Your task to perform on an android device: Search for Mexican restaurants on Maps Image 0: 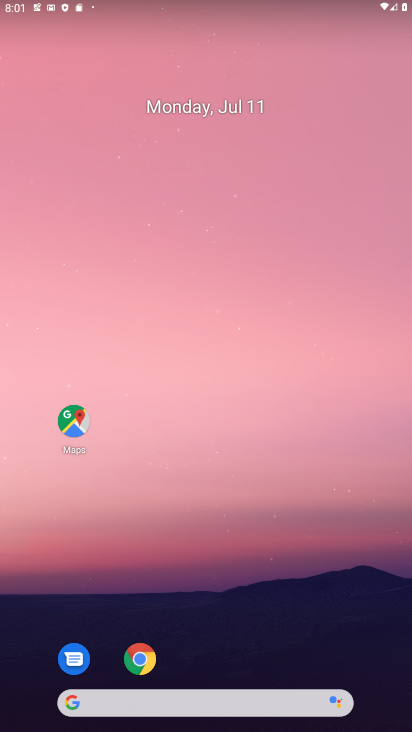
Step 0: drag from (207, 474) to (150, 110)
Your task to perform on an android device: Search for Mexican restaurants on Maps Image 1: 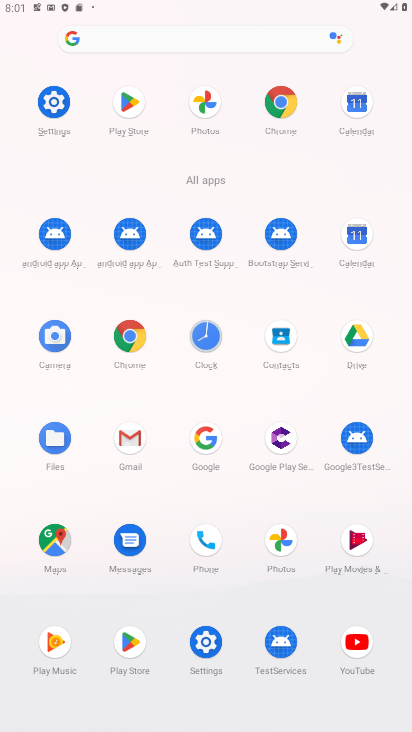
Step 1: click (44, 542)
Your task to perform on an android device: Search for Mexican restaurants on Maps Image 2: 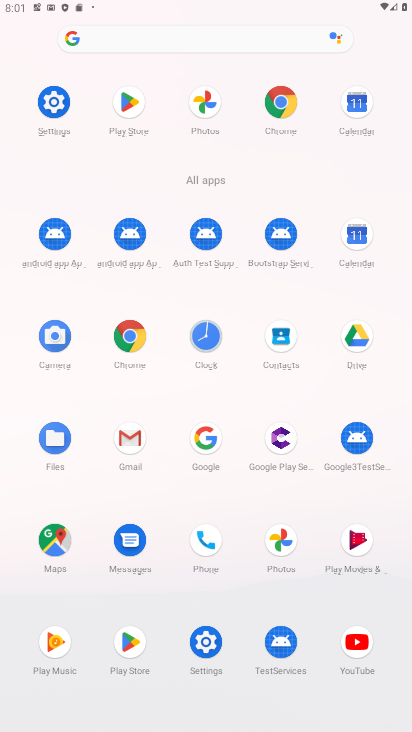
Step 2: click (44, 543)
Your task to perform on an android device: Search for Mexican restaurants on Maps Image 3: 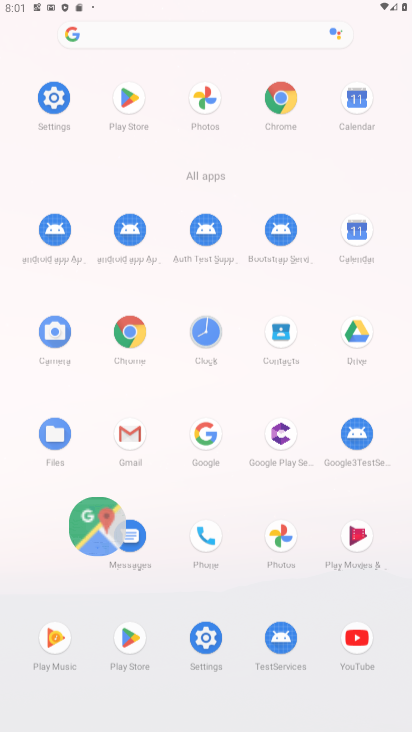
Step 3: click (48, 542)
Your task to perform on an android device: Search for Mexican restaurants on Maps Image 4: 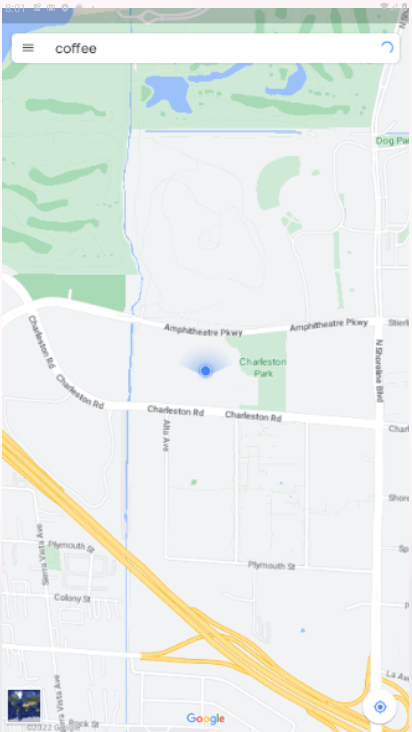
Step 4: click (49, 541)
Your task to perform on an android device: Search for Mexican restaurants on Maps Image 5: 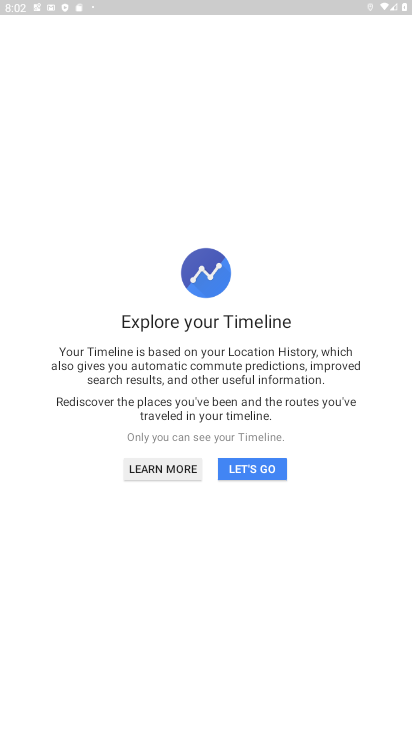
Step 5: press back button
Your task to perform on an android device: Search for Mexican restaurants on Maps Image 6: 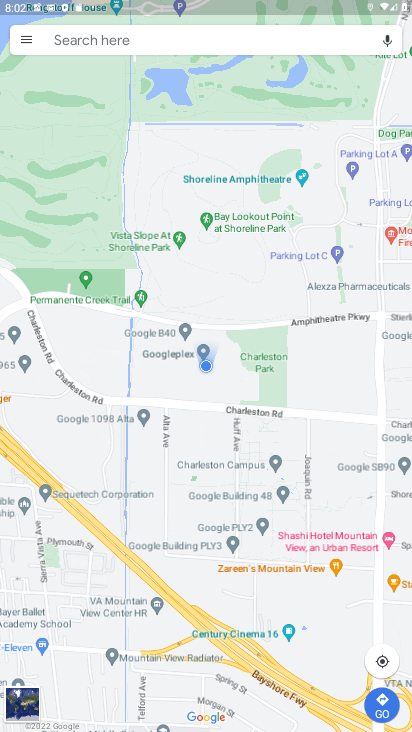
Step 6: click (109, 39)
Your task to perform on an android device: Search for Mexican restaurants on Maps Image 7: 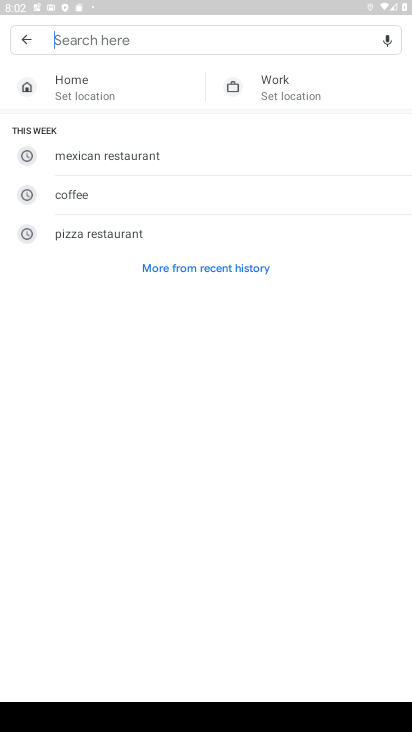
Step 7: press back button
Your task to perform on an android device: Search for Mexican restaurants on Maps Image 8: 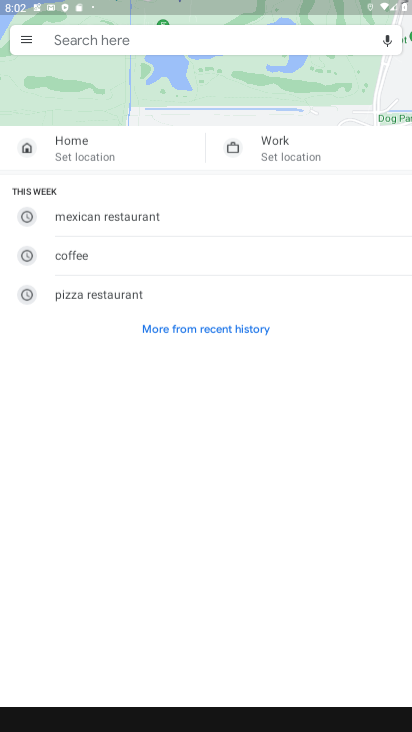
Step 8: press back button
Your task to perform on an android device: Search for Mexican restaurants on Maps Image 9: 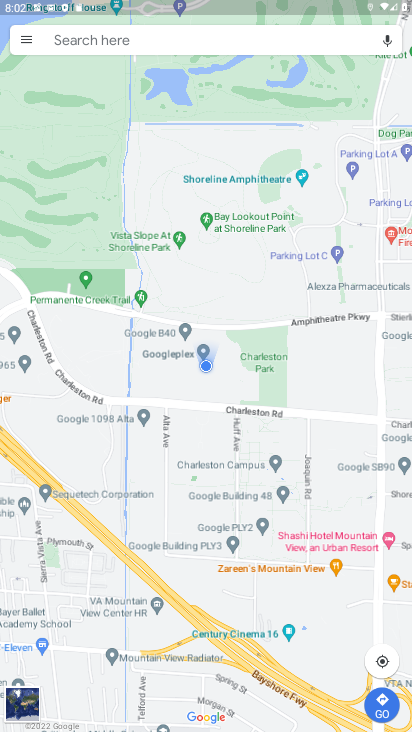
Step 9: press back button
Your task to perform on an android device: Search for Mexican restaurants on Maps Image 10: 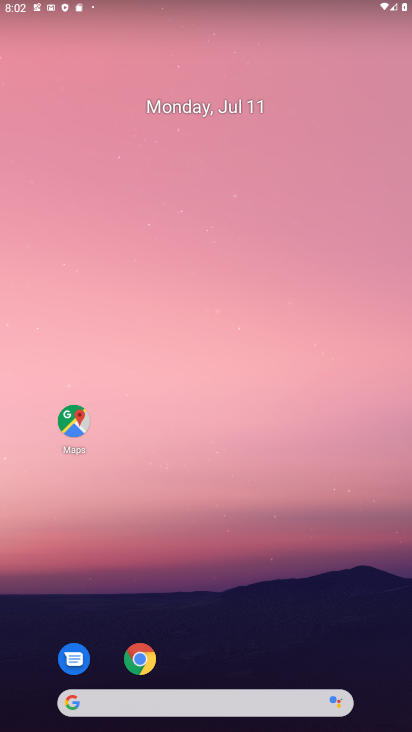
Step 10: drag from (147, 437) to (68, 43)
Your task to perform on an android device: Search for Mexican restaurants on Maps Image 11: 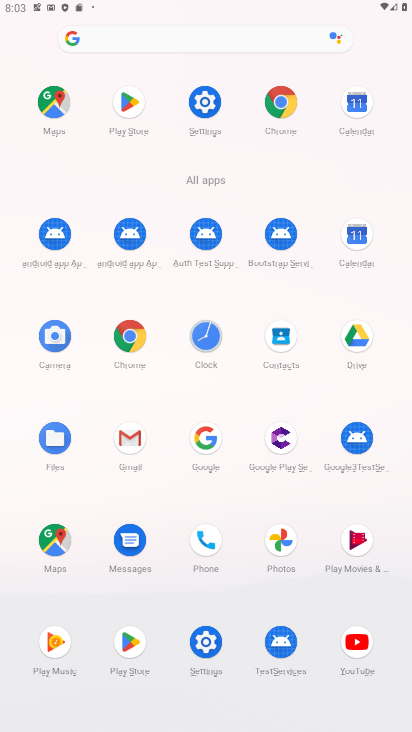
Step 11: click (59, 537)
Your task to perform on an android device: Search for Mexican restaurants on Maps Image 12: 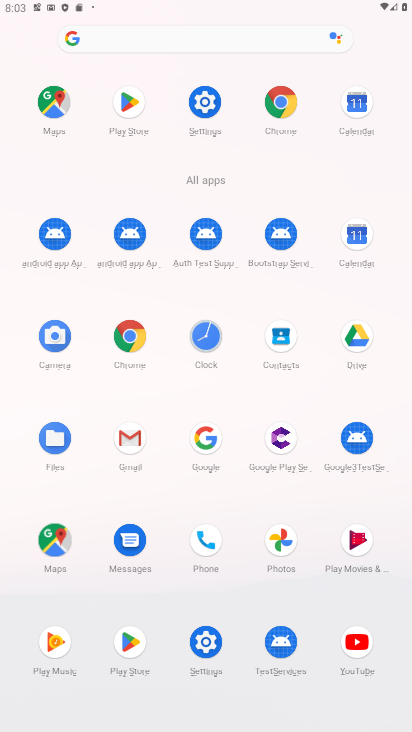
Step 12: click (59, 537)
Your task to perform on an android device: Search for Mexican restaurants on Maps Image 13: 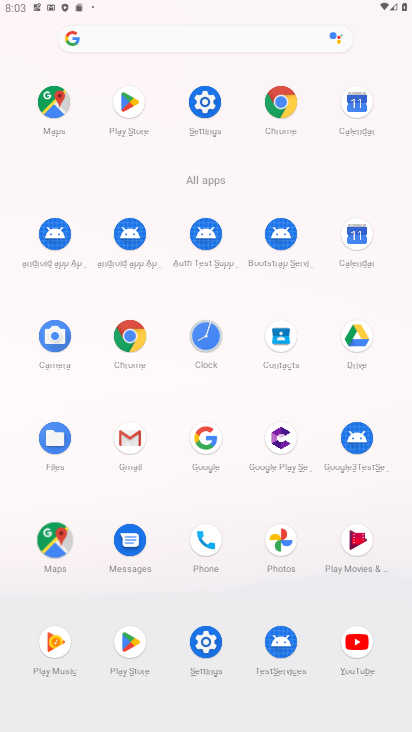
Step 13: click (59, 537)
Your task to perform on an android device: Search for Mexican restaurants on Maps Image 14: 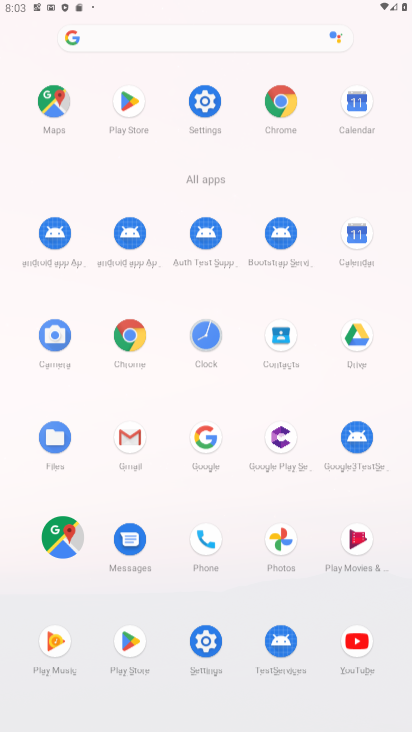
Step 14: click (58, 538)
Your task to perform on an android device: Search for Mexican restaurants on Maps Image 15: 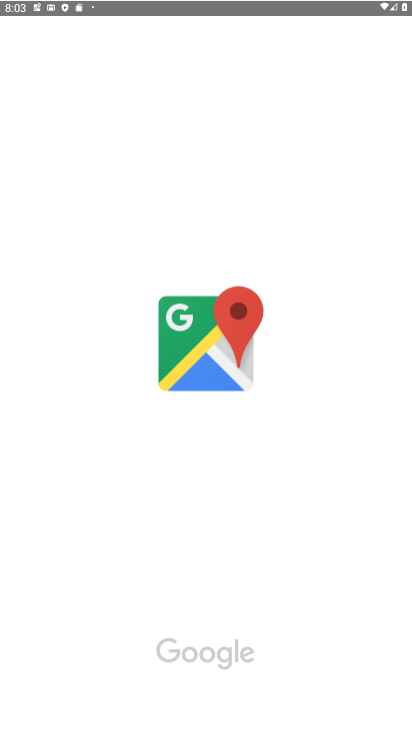
Step 15: click (50, 538)
Your task to perform on an android device: Search for Mexican restaurants on Maps Image 16: 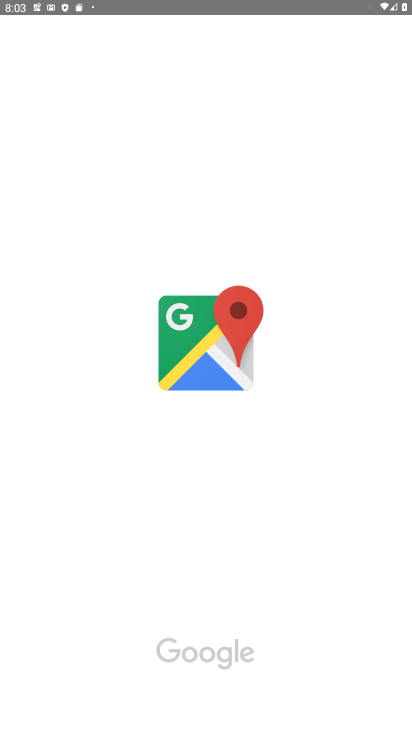
Step 16: click (49, 538)
Your task to perform on an android device: Search for Mexican restaurants on Maps Image 17: 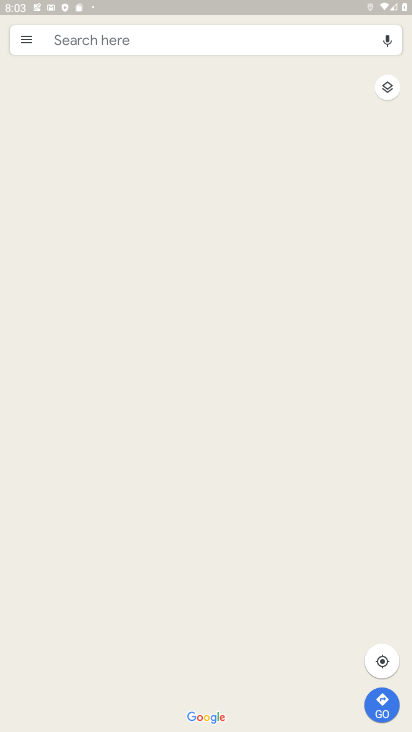
Step 17: click (67, 35)
Your task to perform on an android device: Search for Mexican restaurants on Maps Image 18: 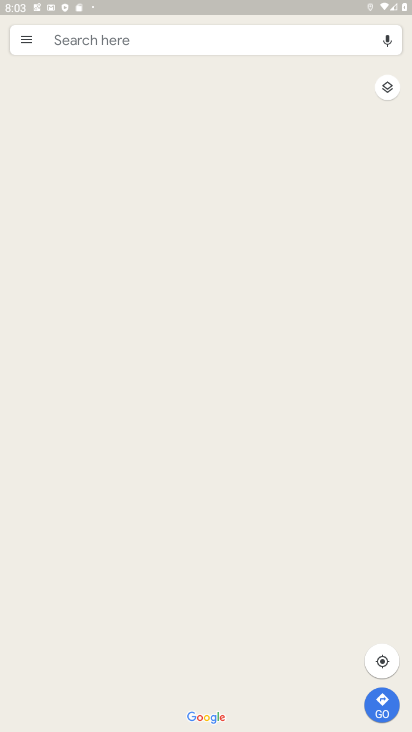
Step 18: click (65, 37)
Your task to perform on an android device: Search for Mexican restaurants on Maps Image 19: 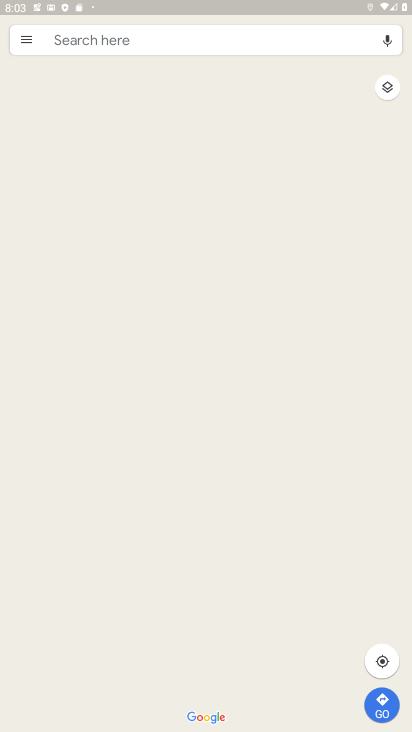
Step 19: click (96, 59)
Your task to perform on an android device: Search for Mexican restaurants on Maps Image 20: 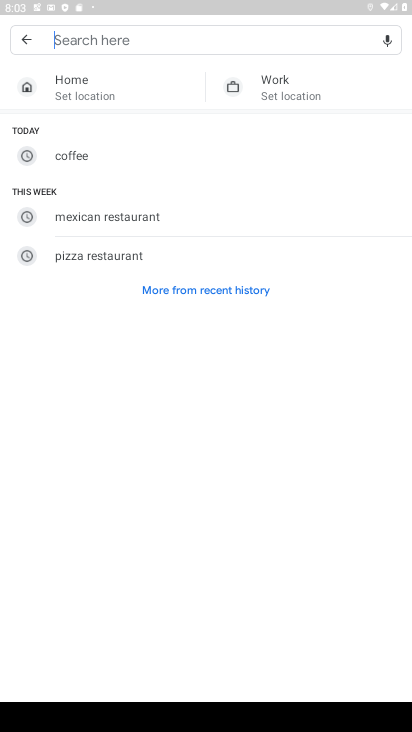
Step 20: click (124, 224)
Your task to perform on an android device: Search for Mexican restaurants on Maps Image 21: 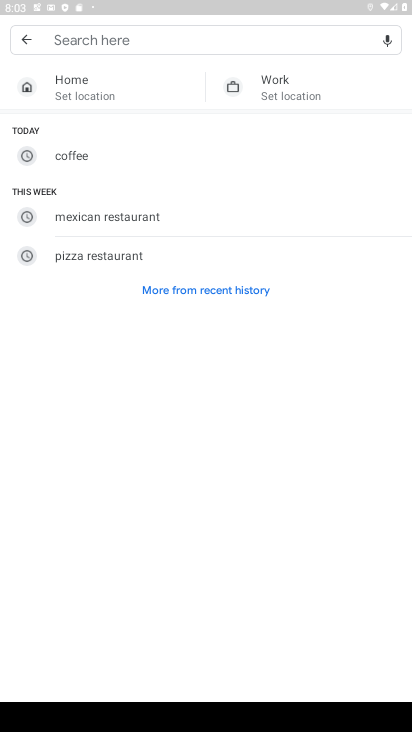
Step 21: click (123, 221)
Your task to perform on an android device: Search for Mexican restaurants on Maps Image 22: 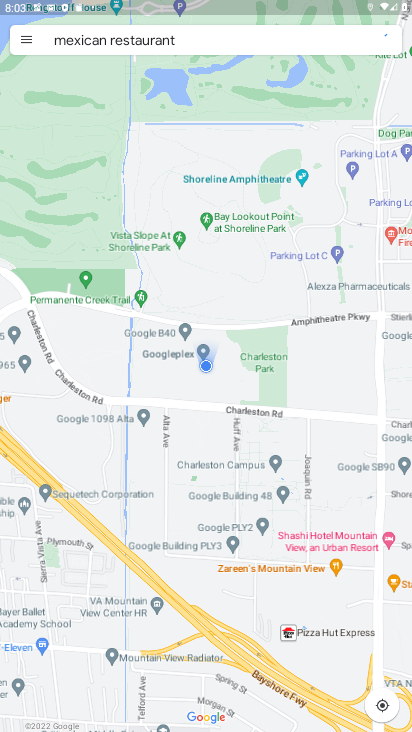
Step 22: task complete